Your task to perform on an android device: Is it going to rain today? Image 0: 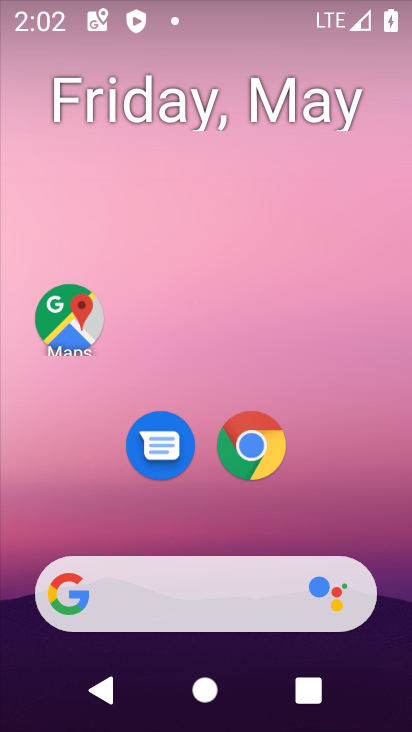
Step 0: press home button
Your task to perform on an android device: Is it going to rain today? Image 1: 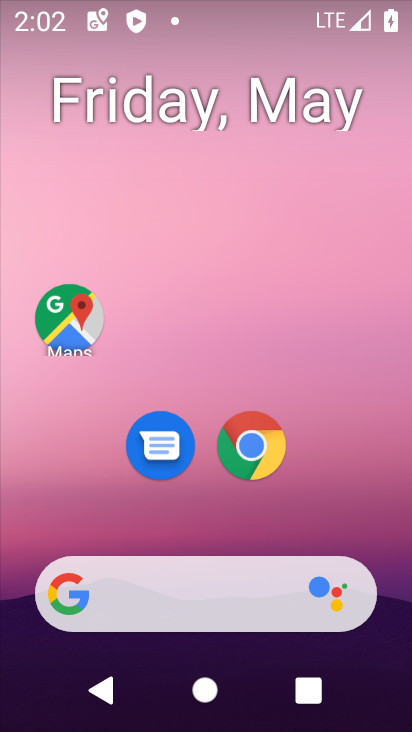
Step 1: drag from (10, 212) to (403, 179)
Your task to perform on an android device: Is it going to rain today? Image 2: 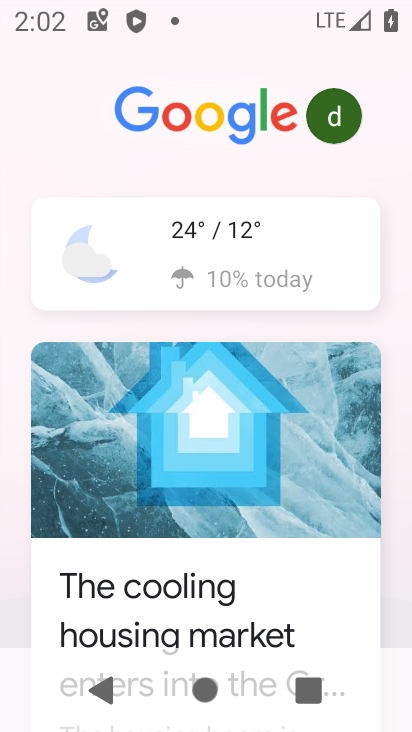
Step 2: click (241, 249)
Your task to perform on an android device: Is it going to rain today? Image 3: 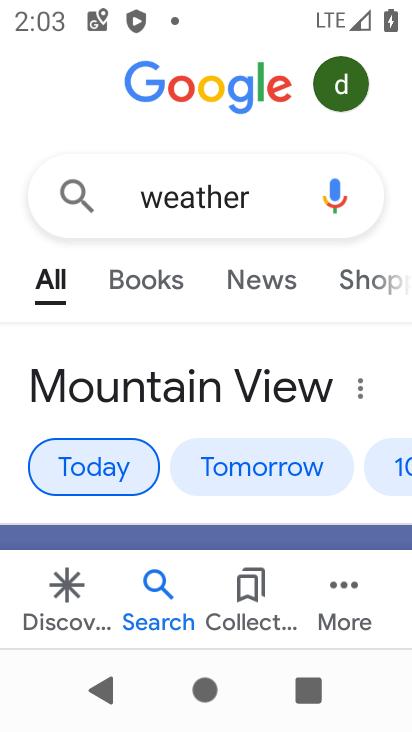
Step 3: click (191, 140)
Your task to perform on an android device: Is it going to rain today? Image 4: 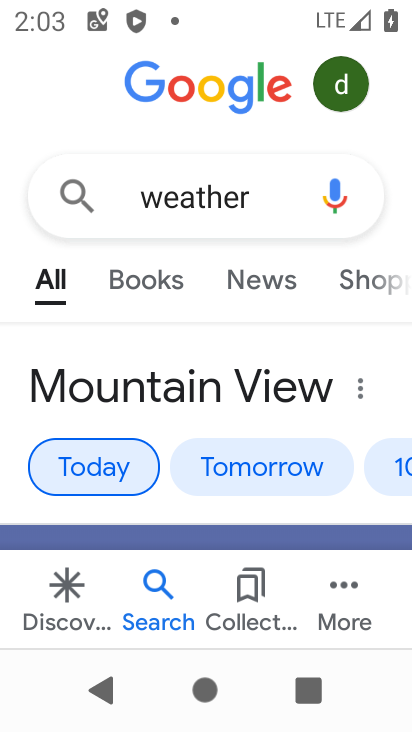
Step 4: drag from (212, 524) to (210, 141)
Your task to perform on an android device: Is it going to rain today? Image 5: 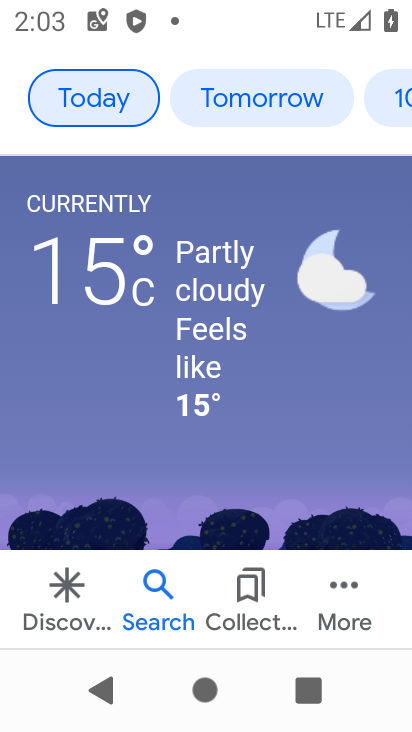
Step 5: drag from (198, 511) to (213, 136)
Your task to perform on an android device: Is it going to rain today? Image 6: 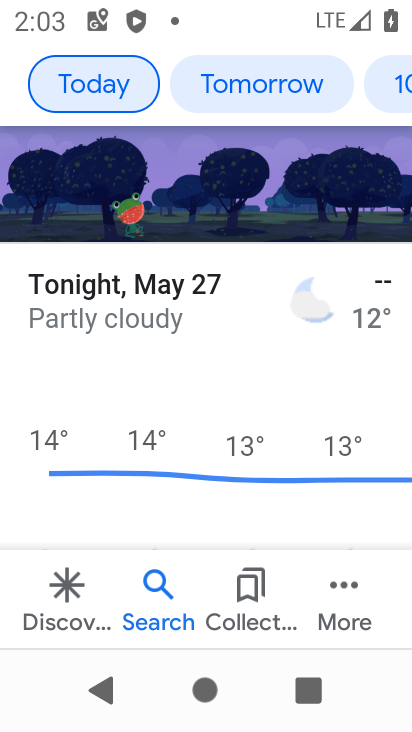
Step 6: drag from (223, 467) to (215, 170)
Your task to perform on an android device: Is it going to rain today? Image 7: 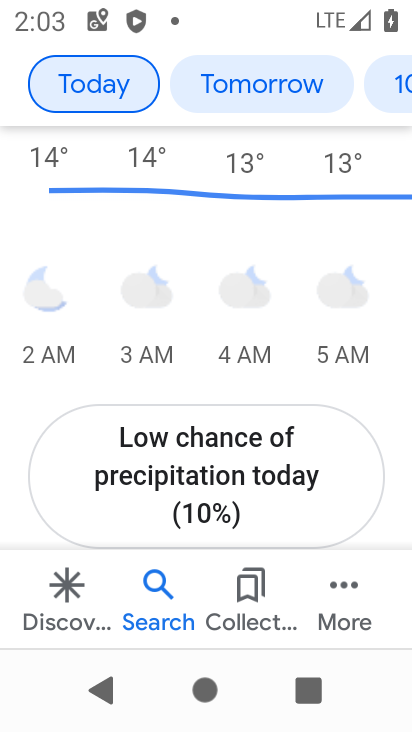
Step 7: drag from (336, 287) to (32, 303)
Your task to perform on an android device: Is it going to rain today? Image 8: 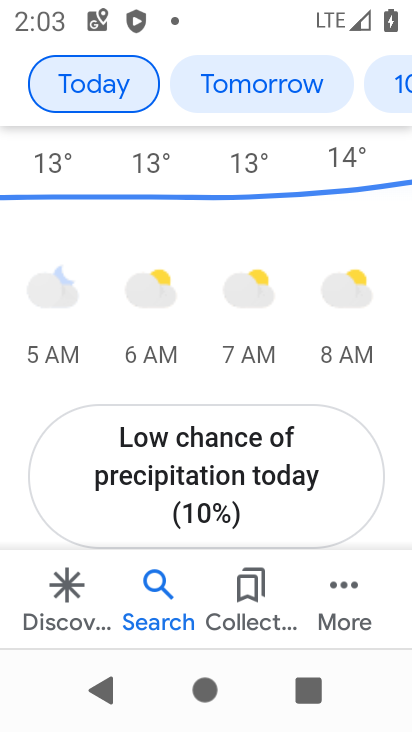
Step 8: drag from (357, 292) to (83, 293)
Your task to perform on an android device: Is it going to rain today? Image 9: 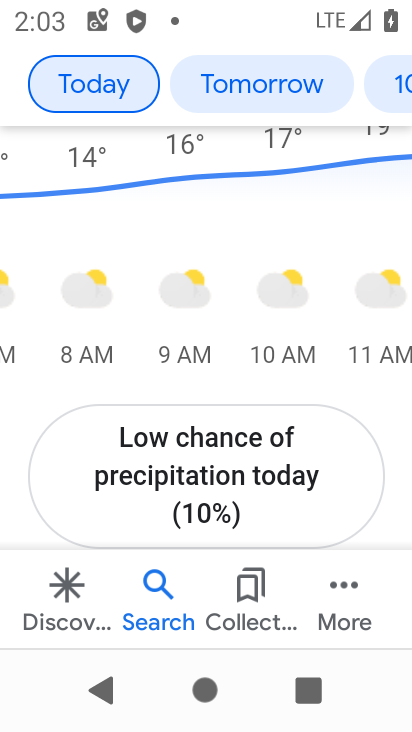
Step 9: drag from (304, 283) to (24, 284)
Your task to perform on an android device: Is it going to rain today? Image 10: 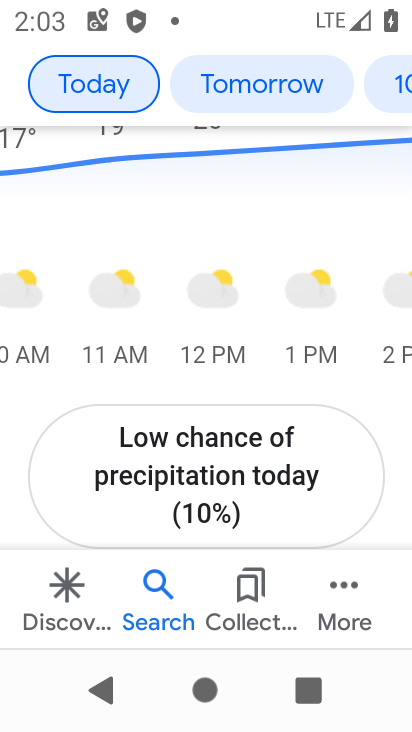
Step 10: click (3, 312)
Your task to perform on an android device: Is it going to rain today? Image 11: 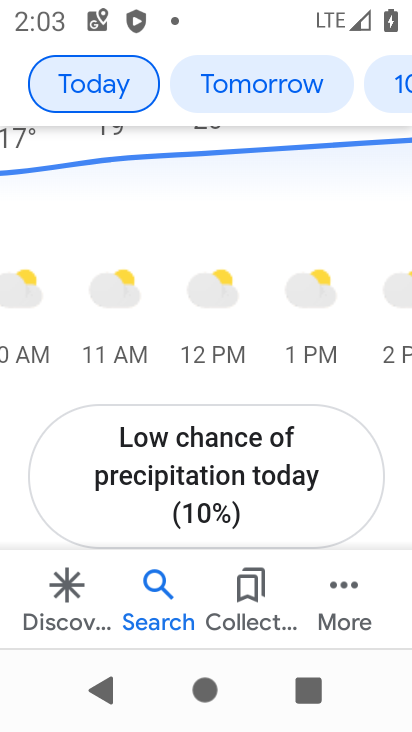
Step 11: task complete